Your task to perform on an android device: find which apps use the phone's location Image 0: 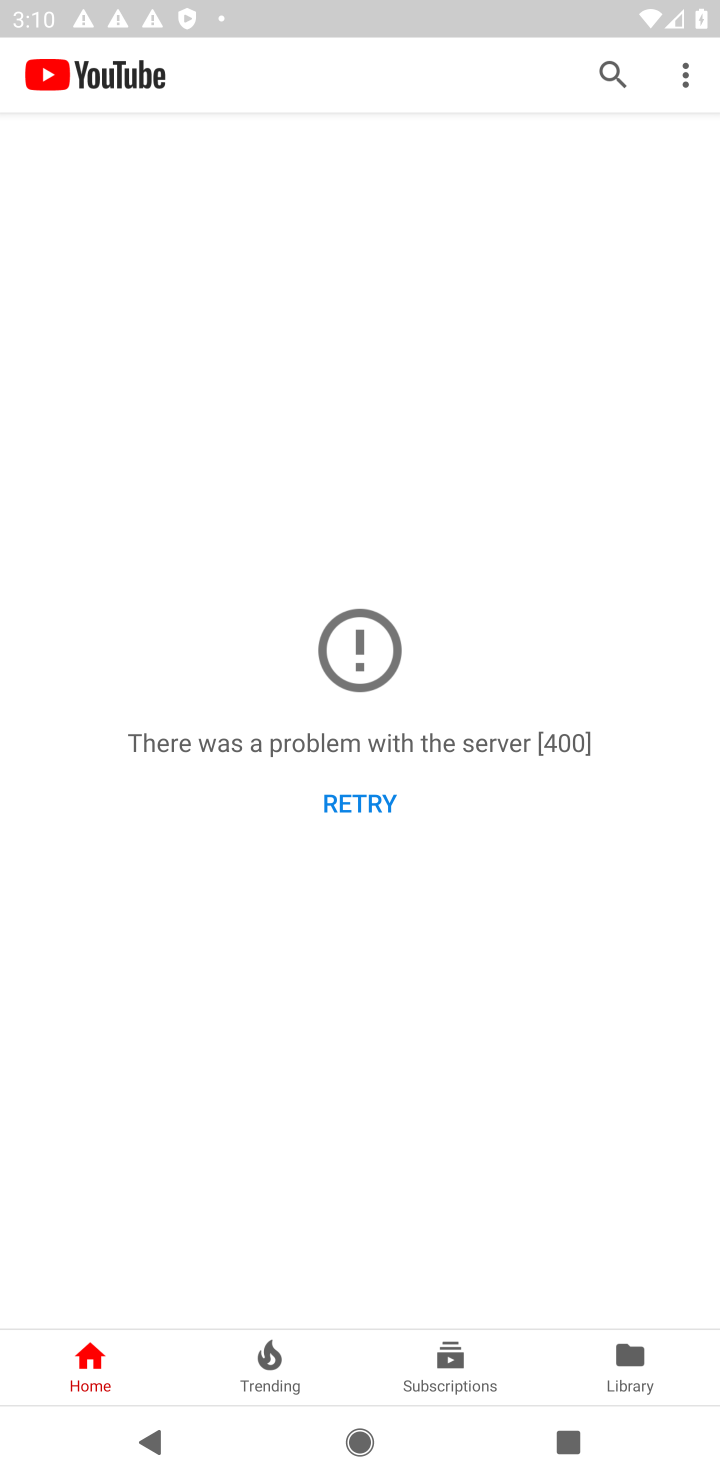
Step 0: press home button
Your task to perform on an android device: find which apps use the phone's location Image 1: 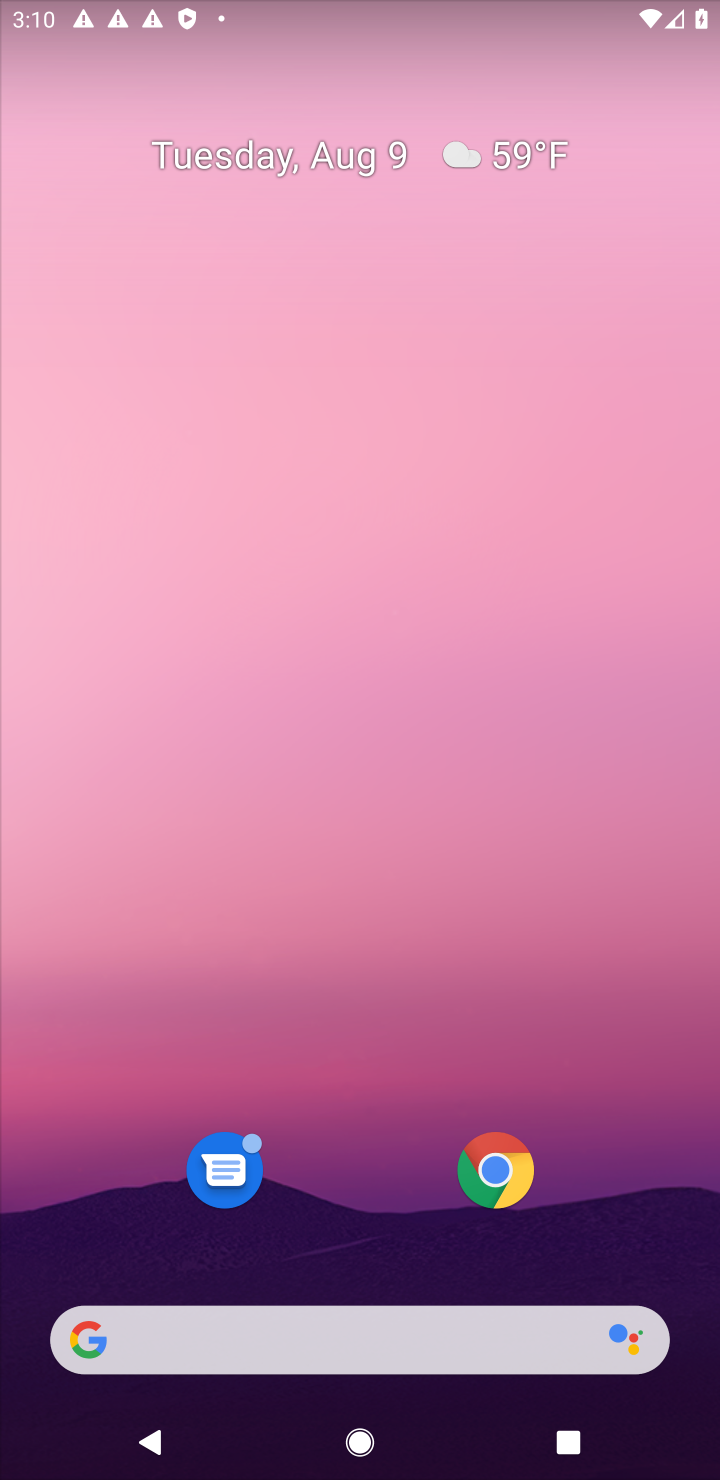
Step 1: drag from (400, 1233) to (462, 148)
Your task to perform on an android device: find which apps use the phone's location Image 2: 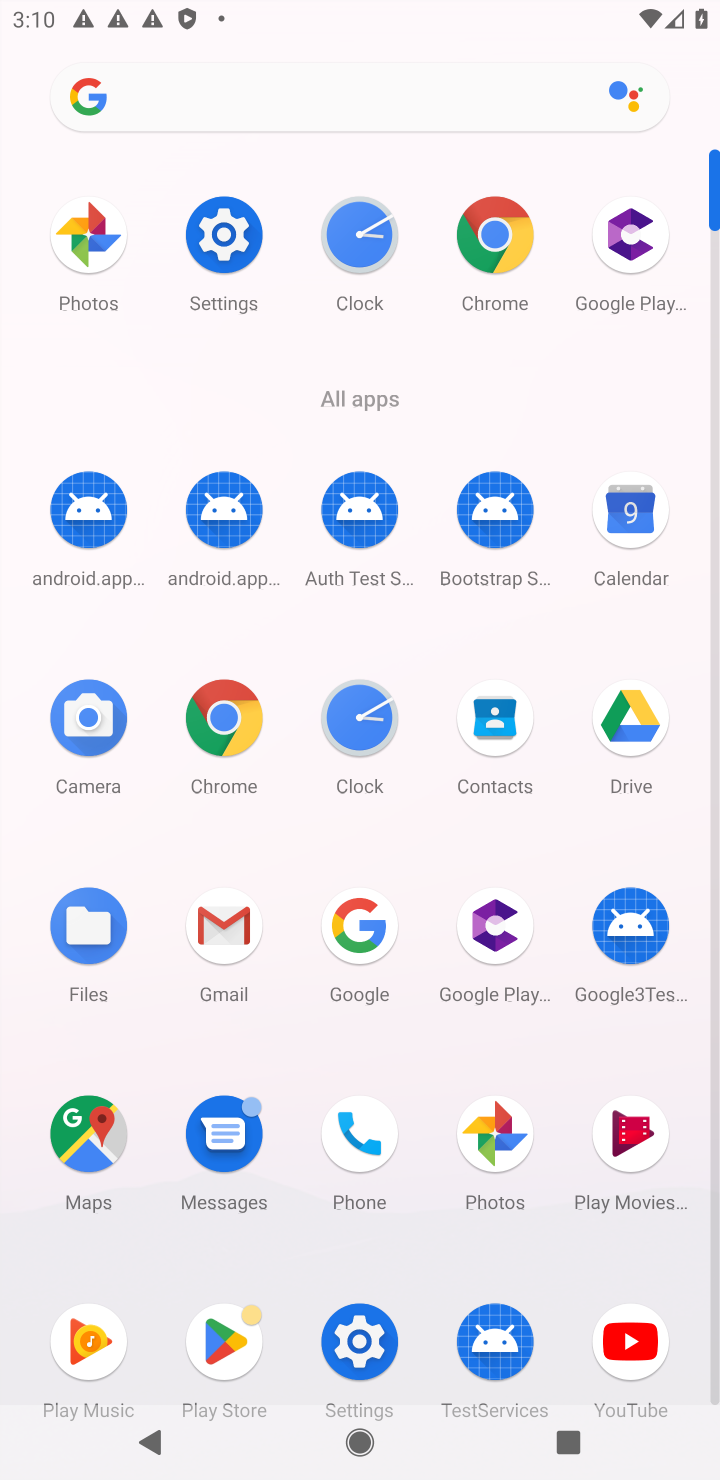
Step 2: click (209, 235)
Your task to perform on an android device: find which apps use the phone's location Image 3: 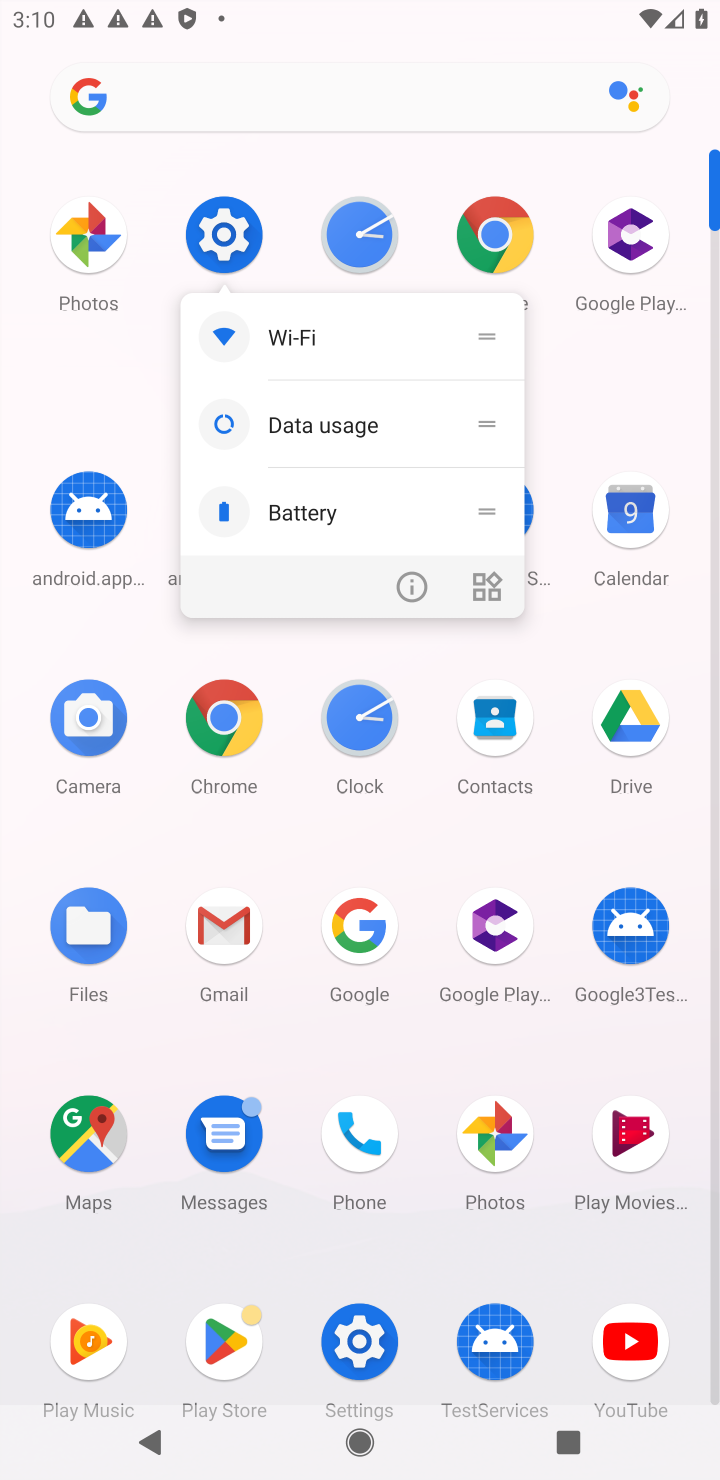
Step 3: click (209, 235)
Your task to perform on an android device: find which apps use the phone's location Image 4: 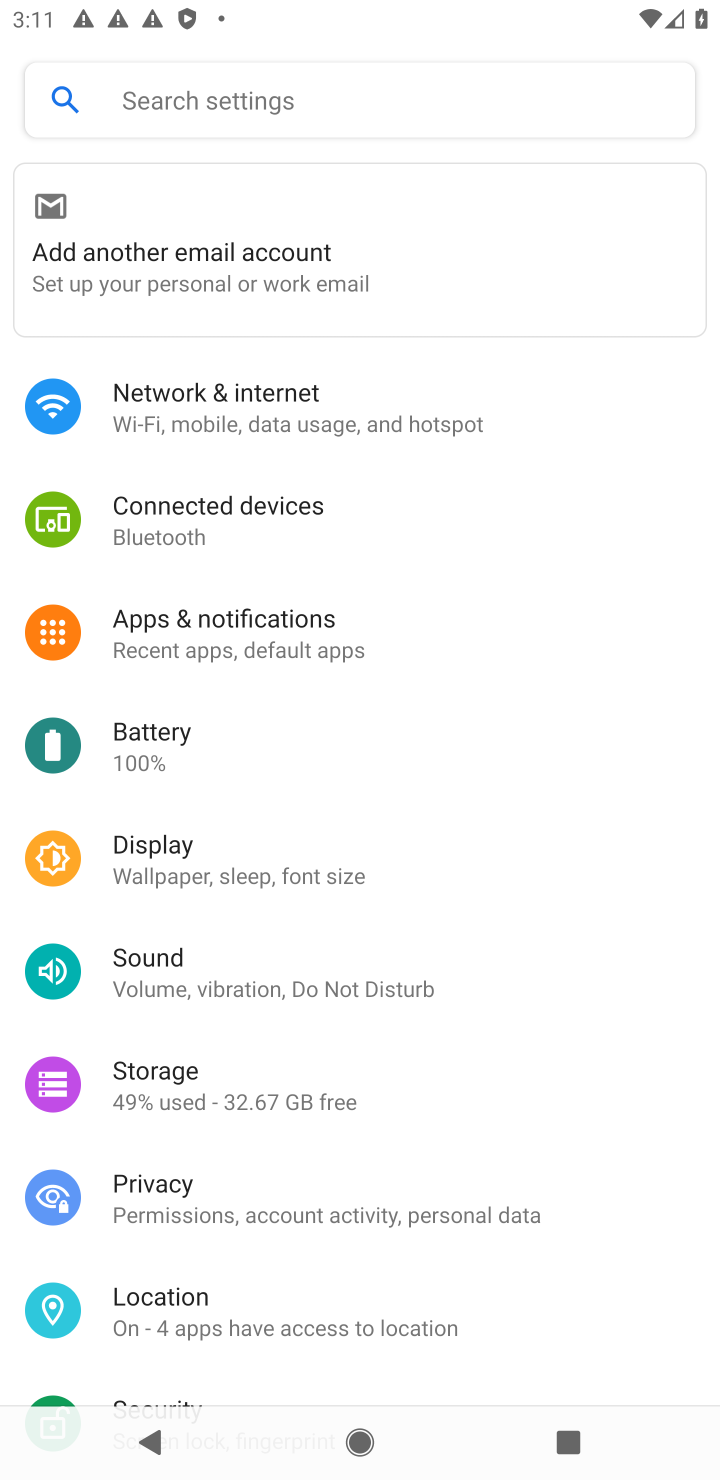
Step 4: drag from (270, 807) to (193, 67)
Your task to perform on an android device: find which apps use the phone's location Image 5: 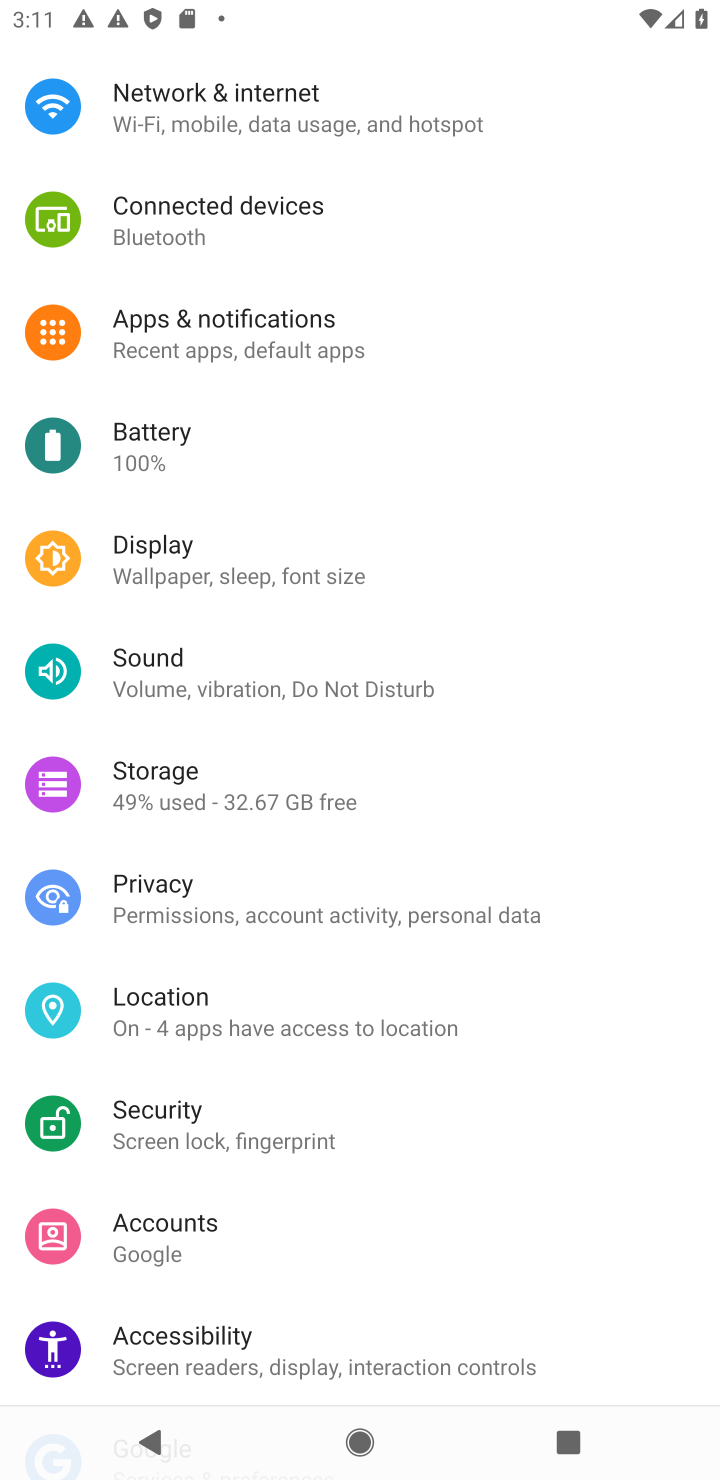
Step 5: click (154, 998)
Your task to perform on an android device: find which apps use the phone's location Image 6: 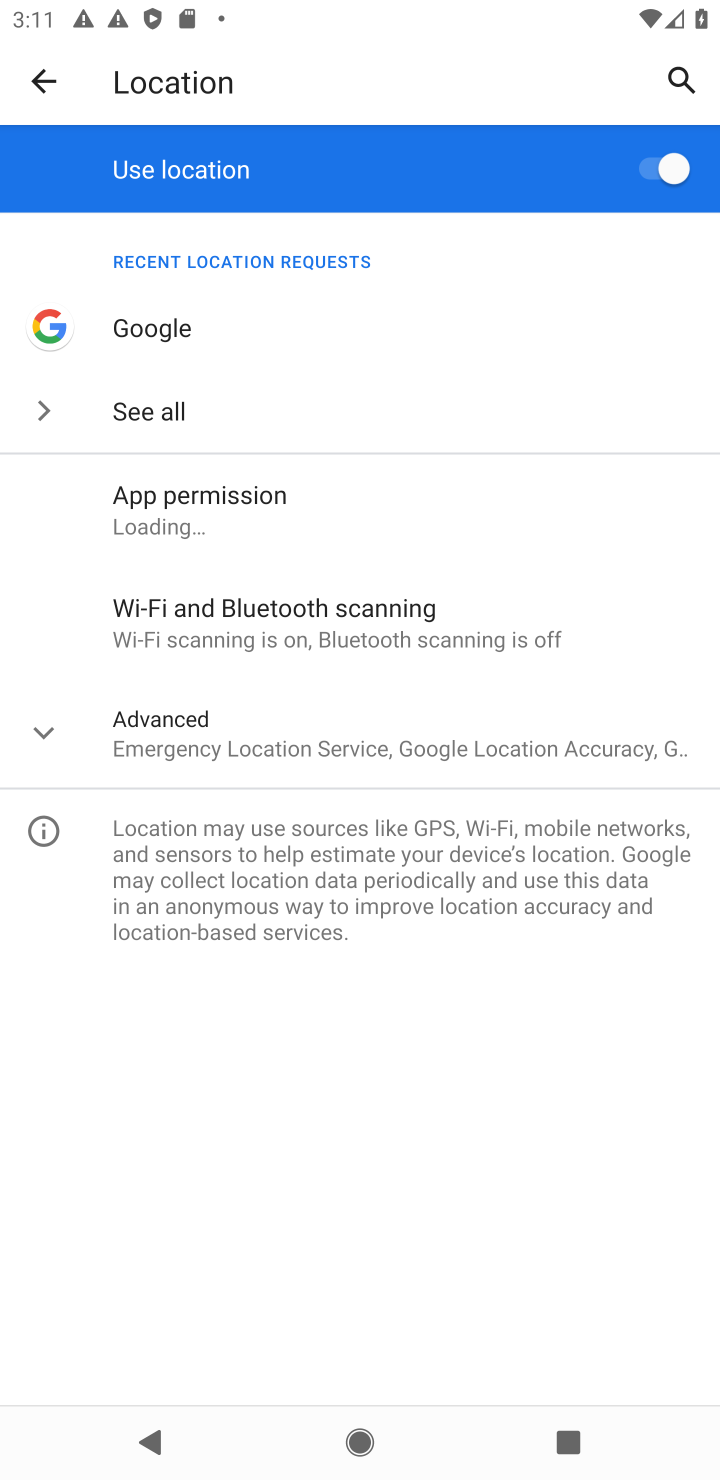
Step 6: click (241, 503)
Your task to perform on an android device: find which apps use the phone's location Image 7: 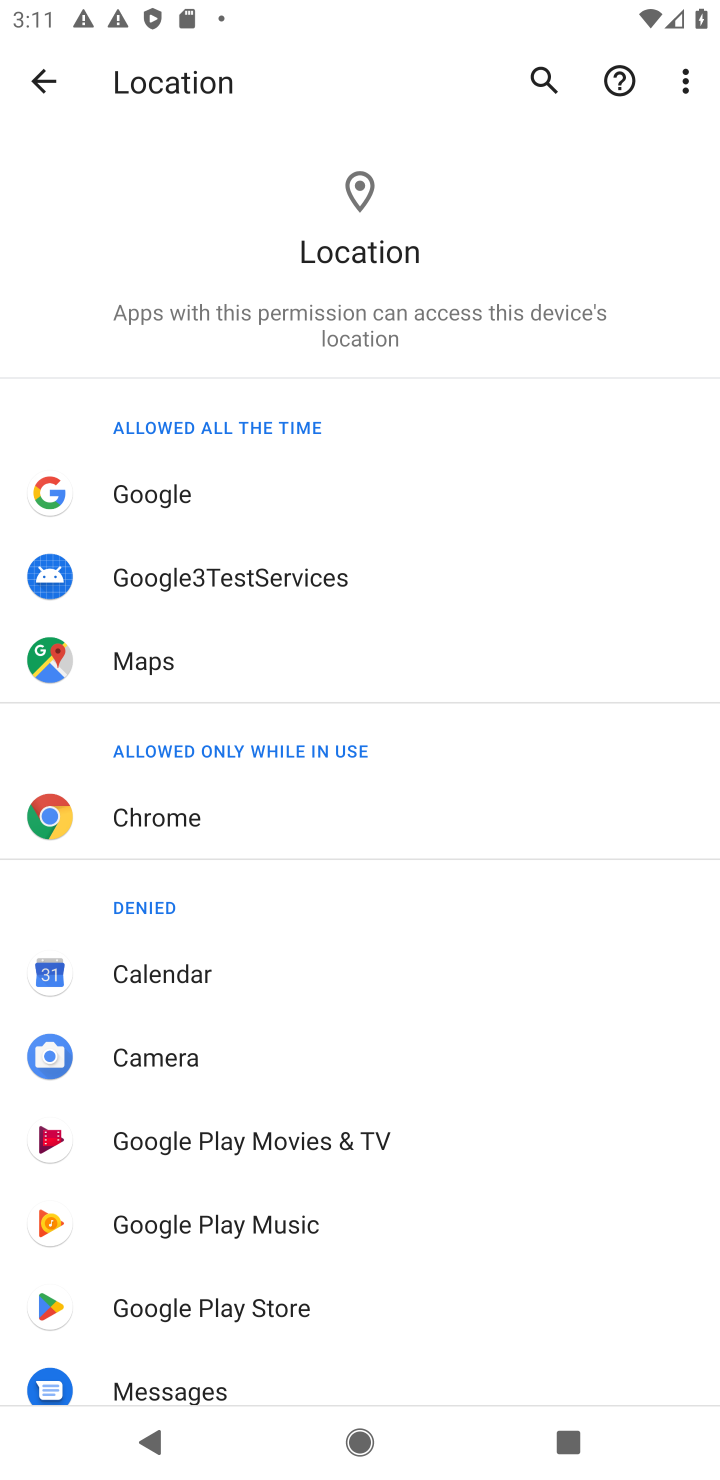
Step 7: task complete